Your task to perform on an android device: Show me popular videos on Youtube Image 0: 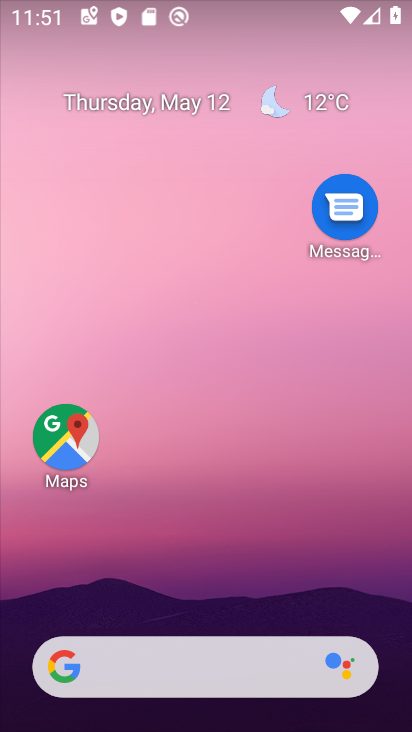
Step 0: press home button
Your task to perform on an android device: Show me popular videos on Youtube Image 1: 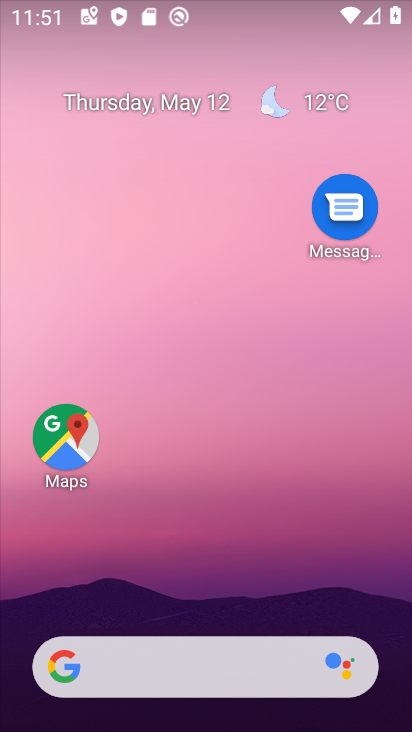
Step 1: drag from (313, 597) to (303, 172)
Your task to perform on an android device: Show me popular videos on Youtube Image 2: 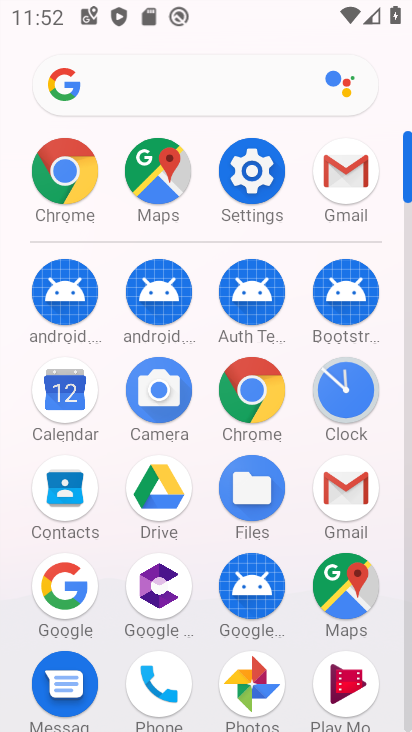
Step 2: click (402, 715)
Your task to perform on an android device: Show me popular videos on Youtube Image 3: 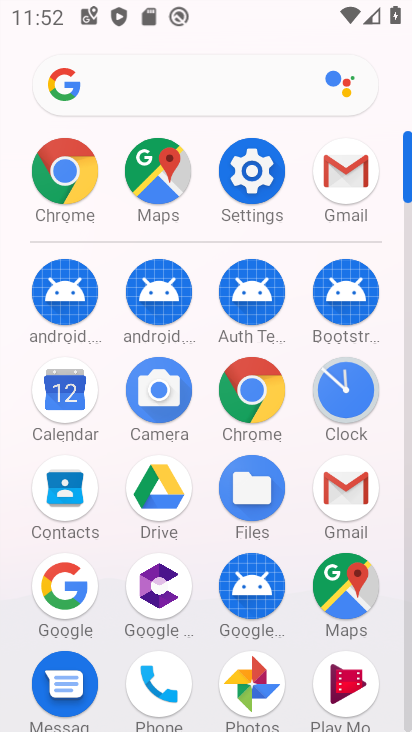
Step 3: click (408, 713)
Your task to perform on an android device: Show me popular videos on Youtube Image 4: 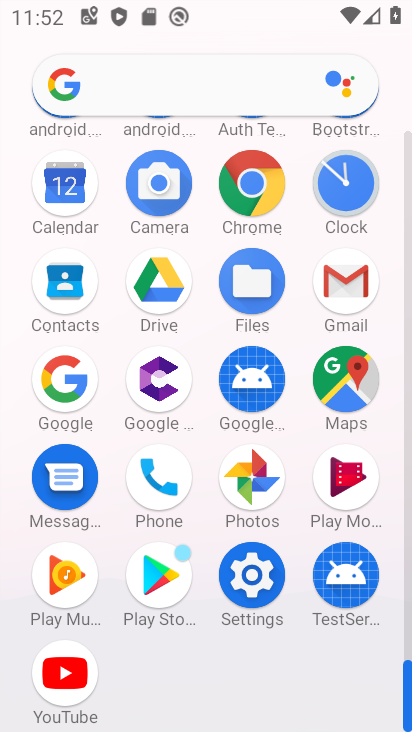
Step 4: click (64, 675)
Your task to perform on an android device: Show me popular videos on Youtube Image 5: 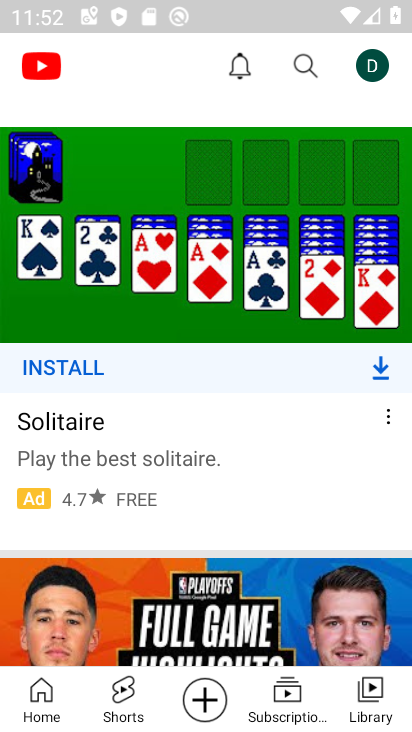
Step 5: click (300, 66)
Your task to perform on an android device: Show me popular videos on Youtube Image 6: 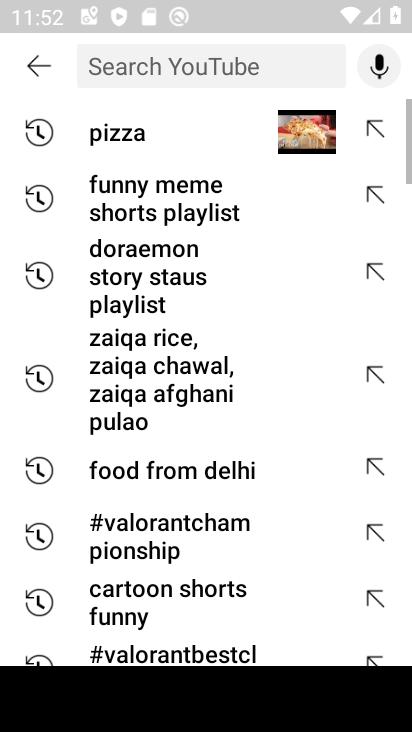
Step 6: click (268, 67)
Your task to perform on an android device: Show me popular videos on Youtube Image 7: 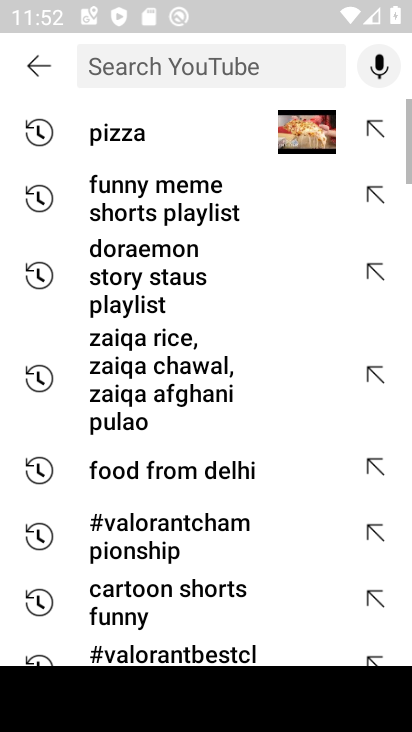
Step 7: click (268, 67)
Your task to perform on an android device: Show me popular videos on Youtube Image 8: 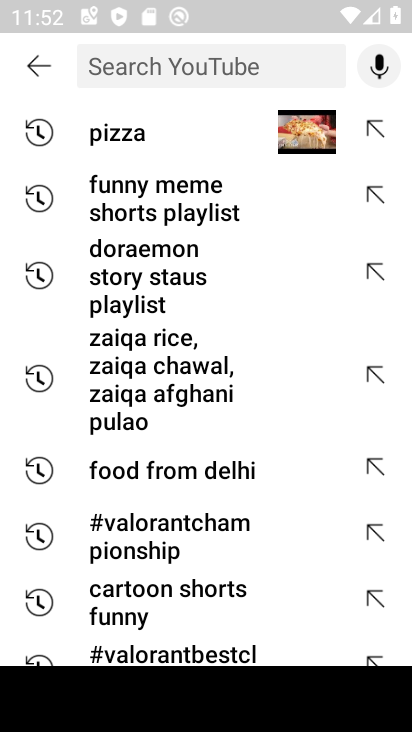
Step 8: type " popular videos"
Your task to perform on an android device: Show me popular videos on Youtube Image 9: 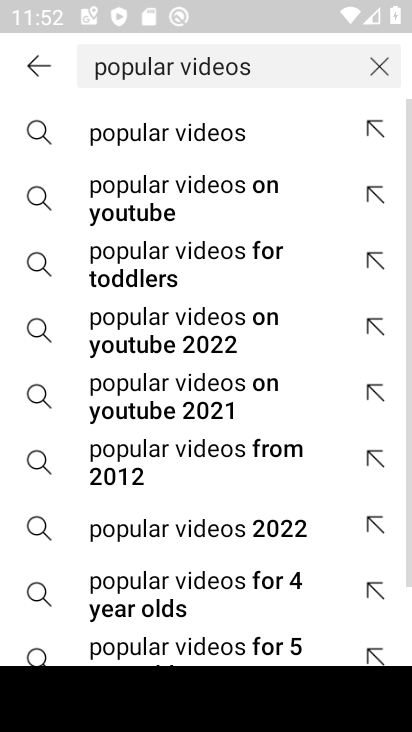
Step 9: click (233, 122)
Your task to perform on an android device: Show me popular videos on Youtube Image 10: 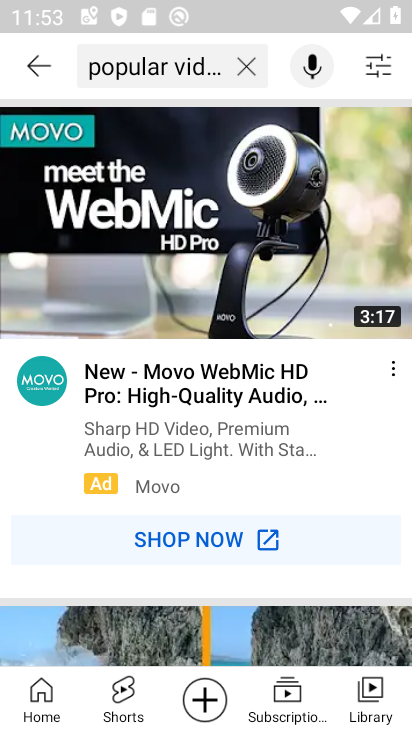
Step 10: task complete